Your task to perform on an android device: Set the phone to "Do not disturb". Image 0: 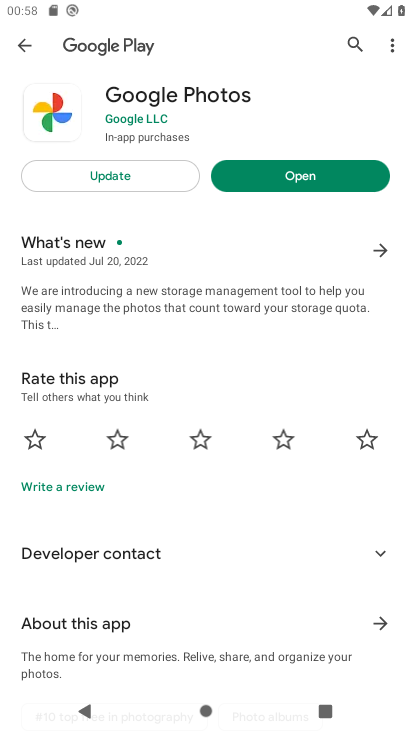
Step 0: press home button
Your task to perform on an android device: Set the phone to "Do not disturb". Image 1: 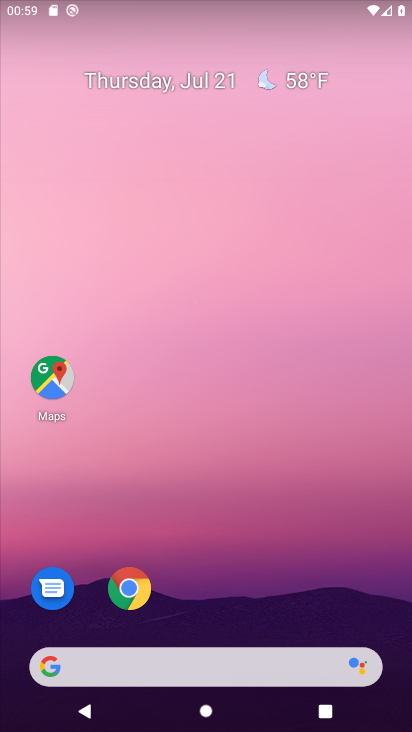
Step 1: drag from (224, 601) to (255, 63)
Your task to perform on an android device: Set the phone to "Do not disturb". Image 2: 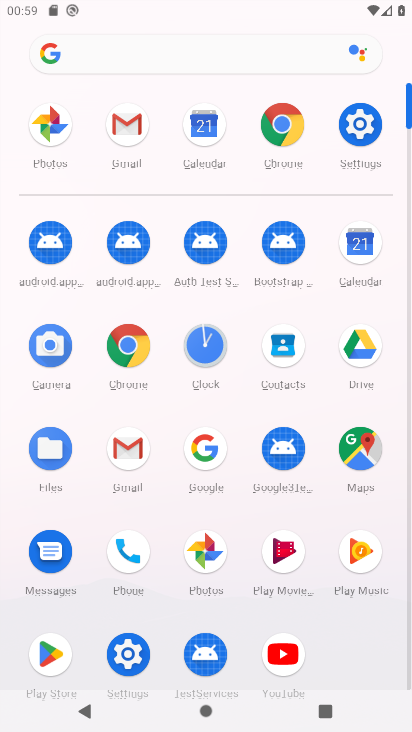
Step 2: click (359, 134)
Your task to perform on an android device: Set the phone to "Do not disturb". Image 3: 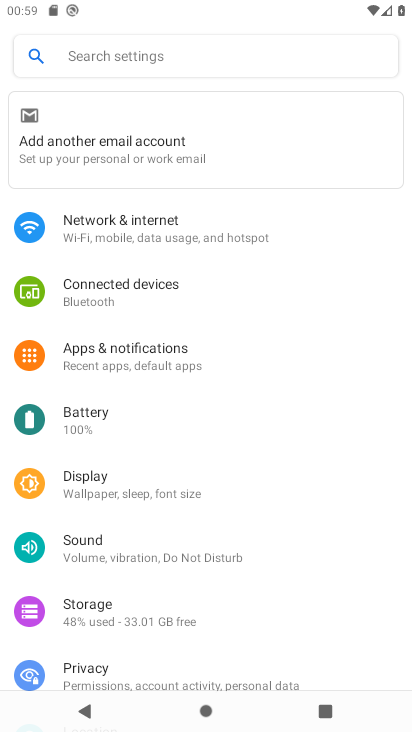
Step 3: click (120, 569)
Your task to perform on an android device: Set the phone to "Do not disturb". Image 4: 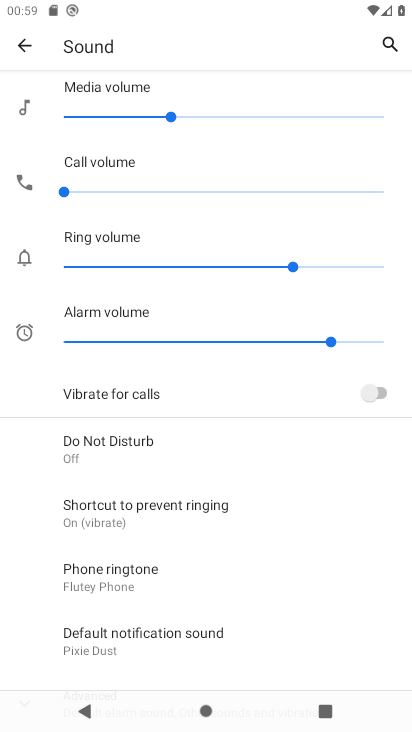
Step 4: click (154, 460)
Your task to perform on an android device: Set the phone to "Do not disturb". Image 5: 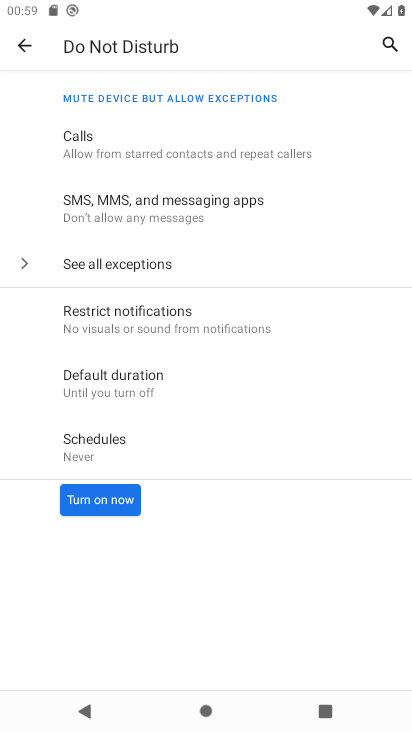
Step 5: click (105, 505)
Your task to perform on an android device: Set the phone to "Do not disturb". Image 6: 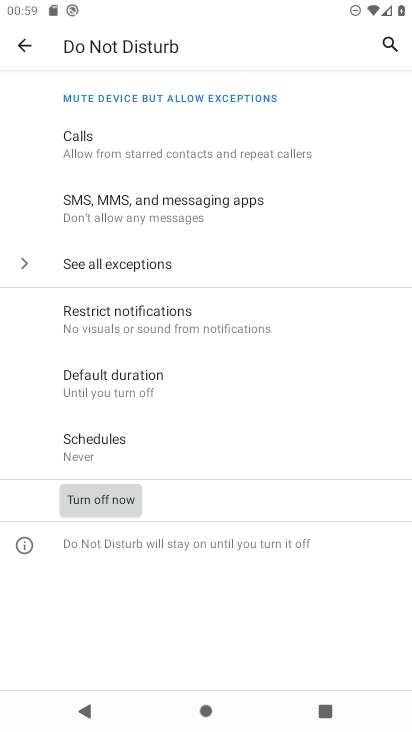
Step 6: task complete